Your task to perform on an android device: find photos in the google photos app Image 0: 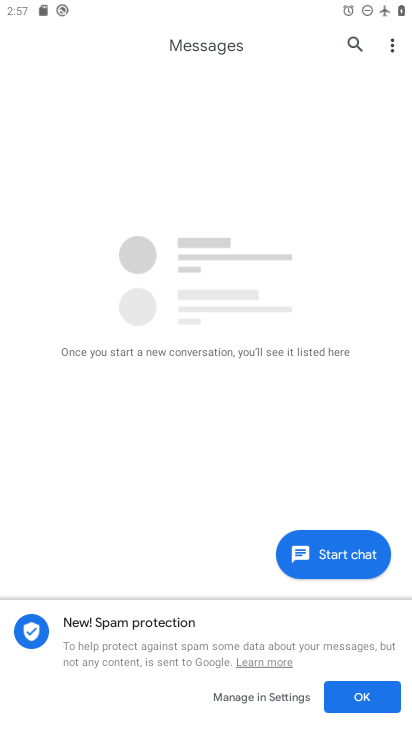
Step 0: press home button
Your task to perform on an android device: find photos in the google photos app Image 1: 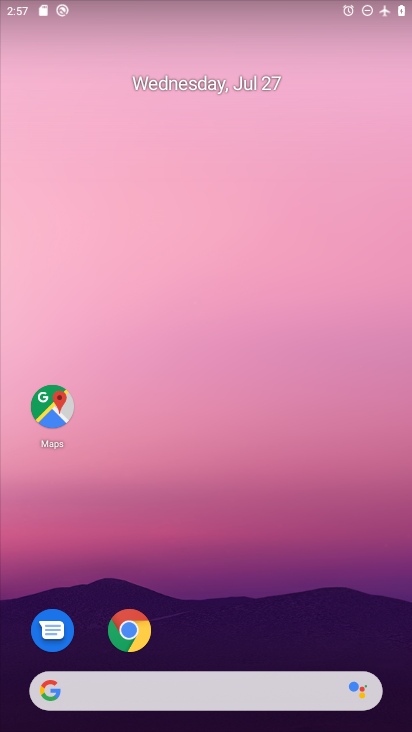
Step 1: drag from (296, 624) to (308, 249)
Your task to perform on an android device: find photos in the google photos app Image 2: 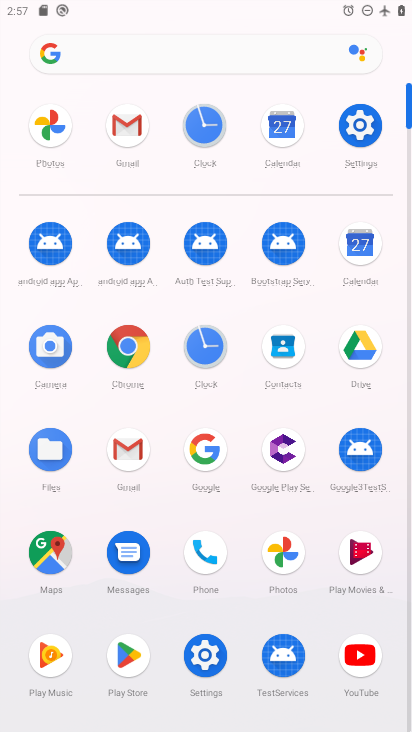
Step 2: click (284, 552)
Your task to perform on an android device: find photos in the google photos app Image 3: 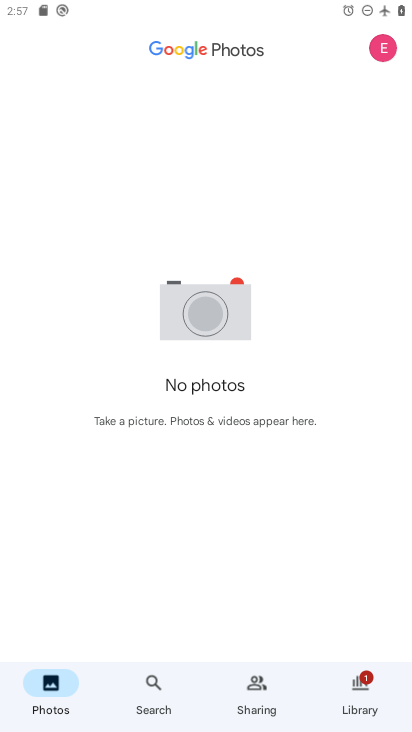
Step 3: task complete